Your task to perform on an android device: What's the weather today? Image 0: 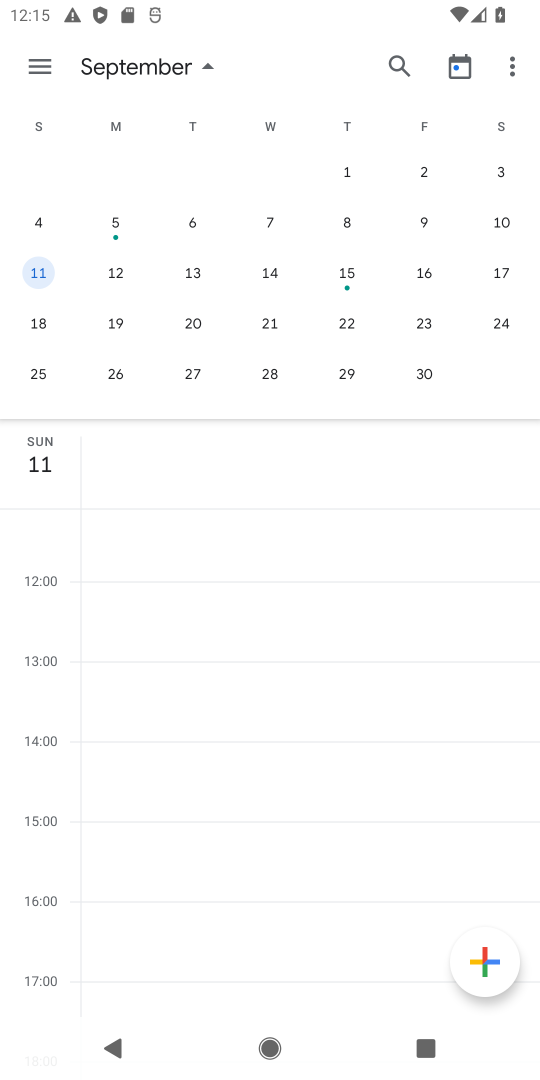
Step 0: press home button
Your task to perform on an android device: What's the weather today? Image 1: 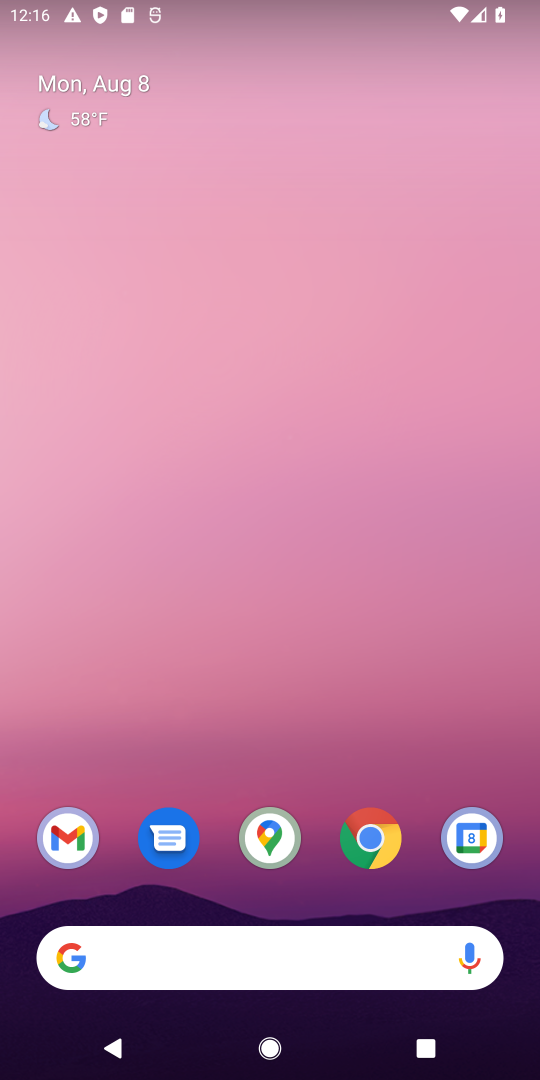
Step 1: click (70, 950)
Your task to perform on an android device: What's the weather today? Image 2: 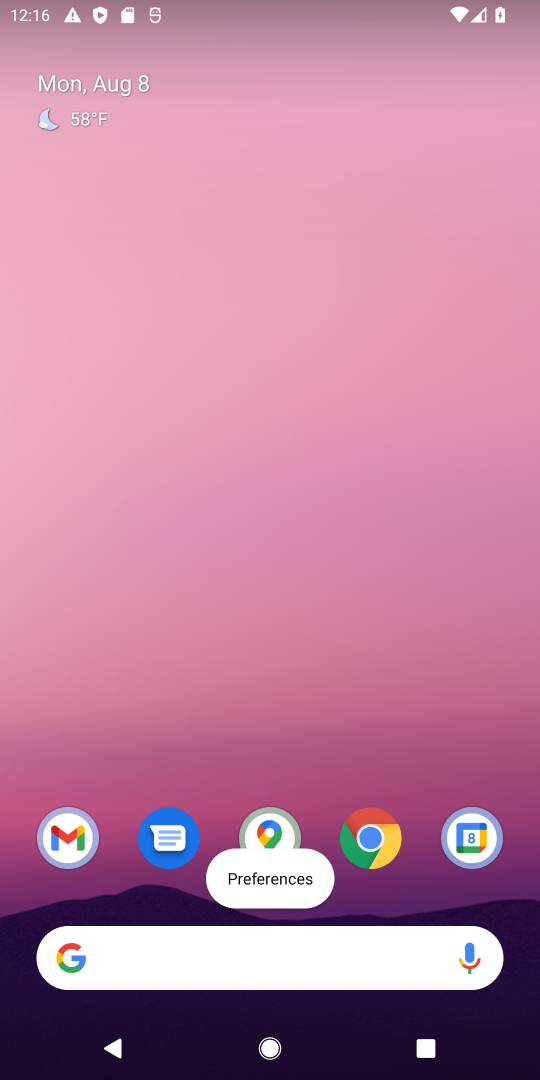
Step 2: click (447, 1079)
Your task to perform on an android device: What's the weather today? Image 3: 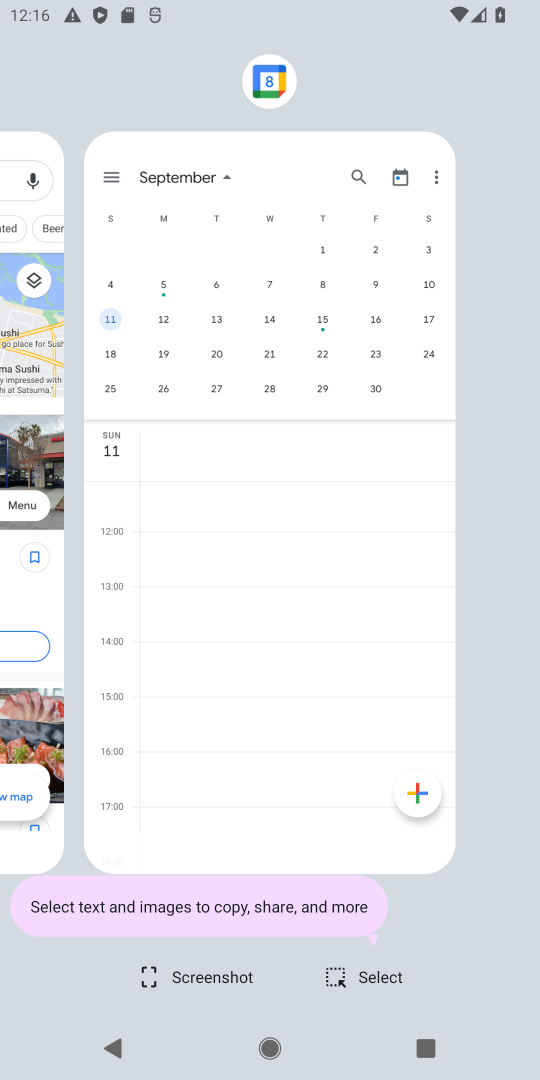
Step 3: press home button
Your task to perform on an android device: What's the weather today? Image 4: 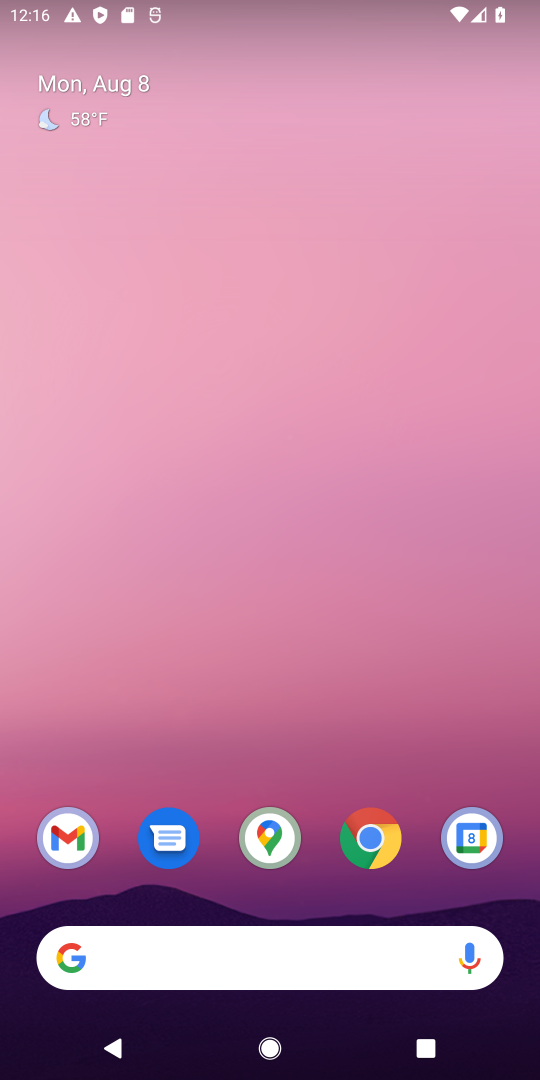
Step 4: click (65, 953)
Your task to perform on an android device: What's the weather today? Image 5: 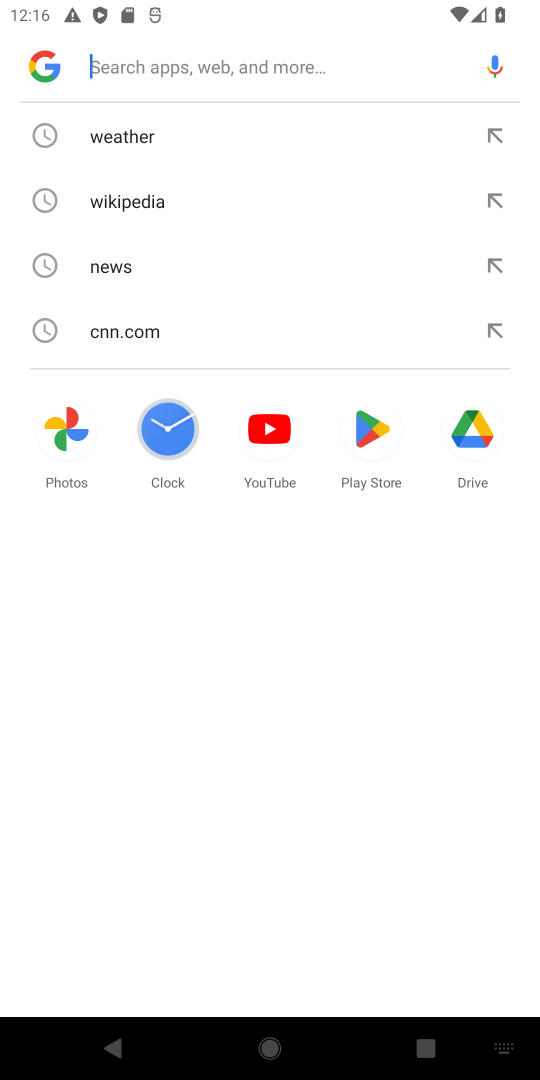
Step 5: press enter
Your task to perform on an android device: What's the weather today? Image 6: 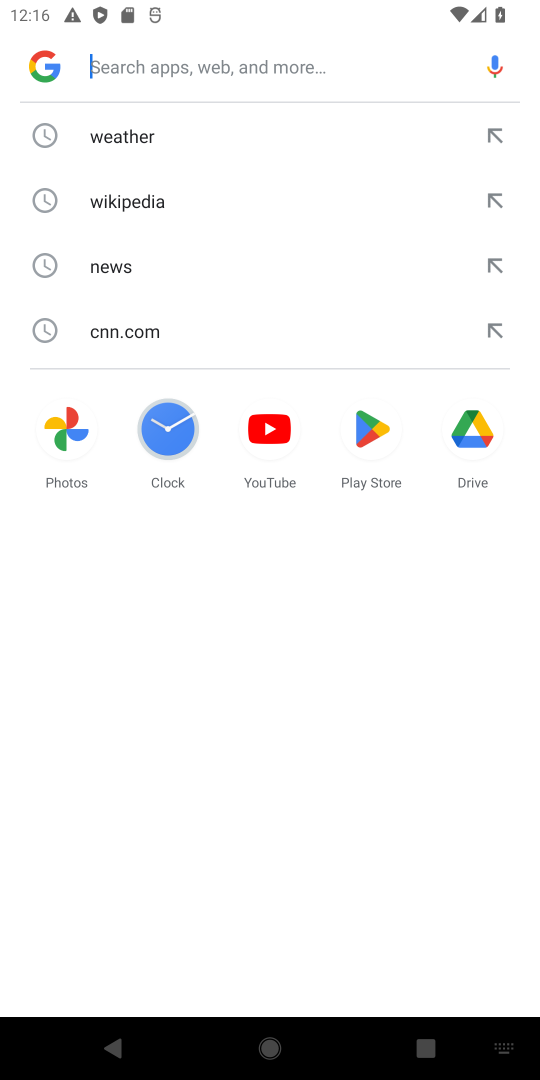
Step 6: type "weather today?"
Your task to perform on an android device: What's the weather today? Image 7: 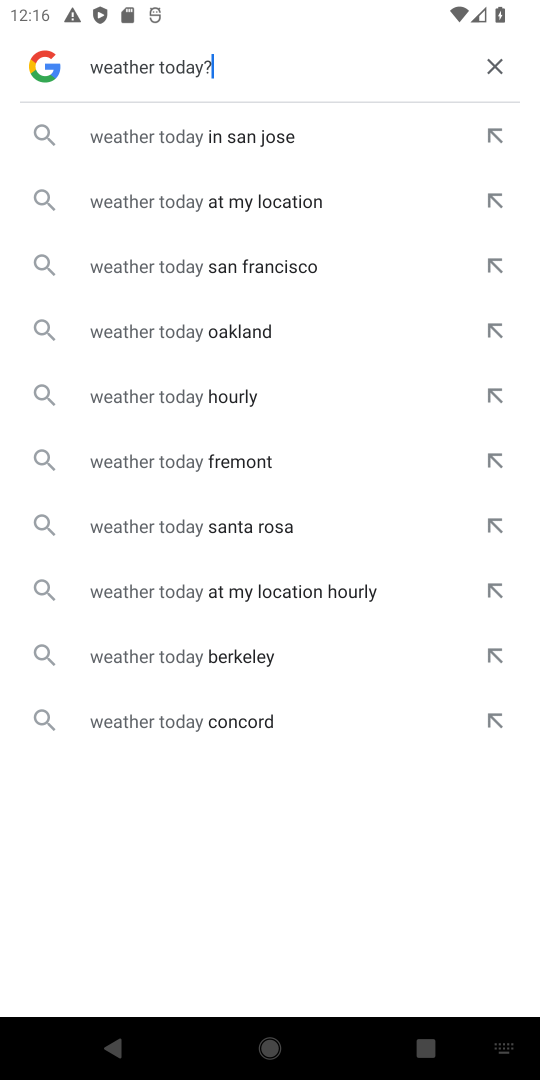
Step 7: press enter
Your task to perform on an android device: What's the weather today? Image 8: 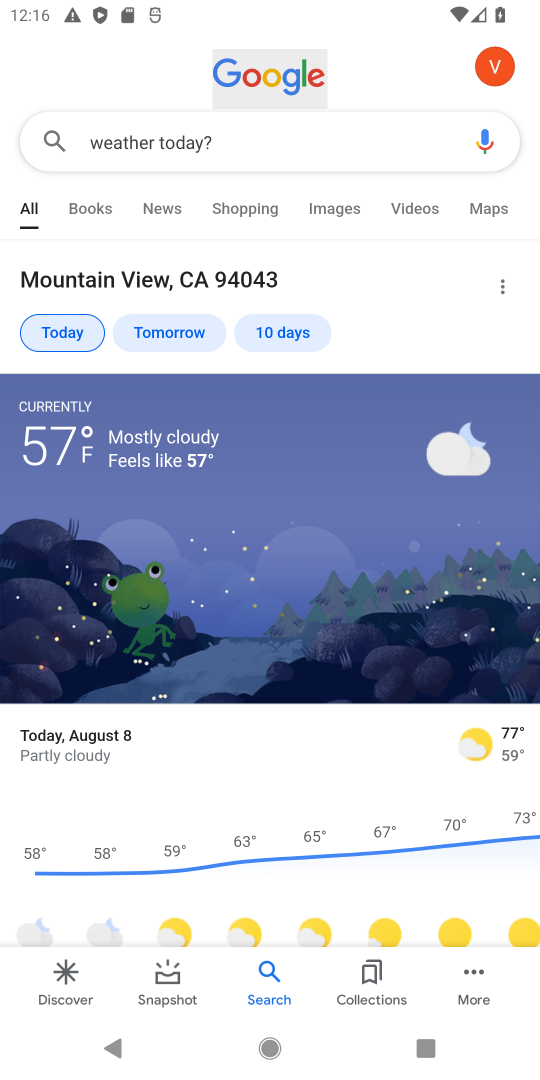
Step 8: task complete